Your task to perform on an android device: Go to battery settings Image 0: 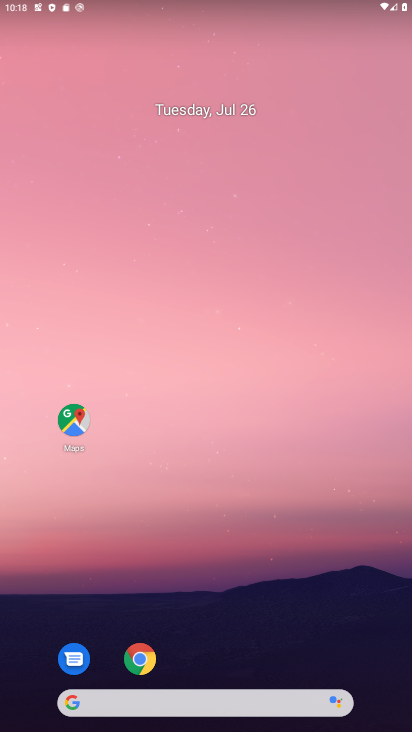
Step 0: press home button
Your task to perform on an android device: Go to battery settings Image 1: 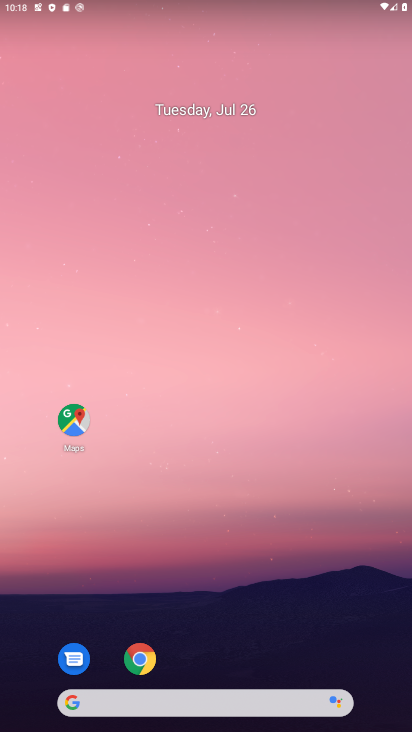
Step 1: drag from (297, 623) to (364, 213)
Your task to perform on an android device: Go to battery settings Image 2: 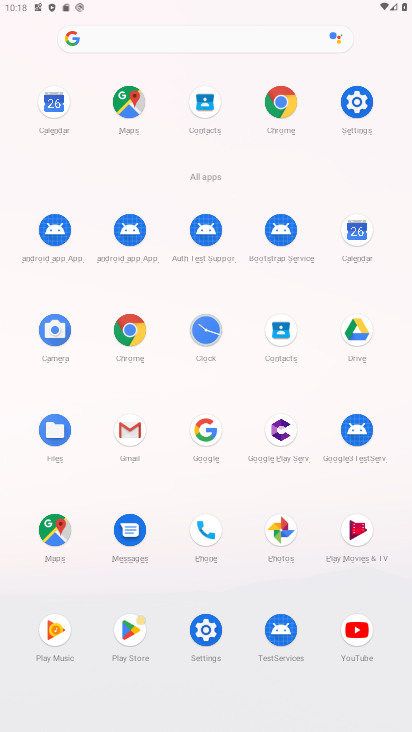
Step 2: click (350, 126)
Your task to perform on an android device: Go to battery settings Image 3: 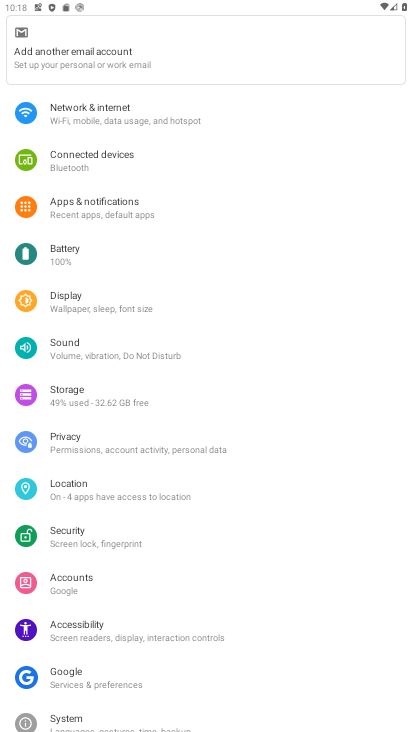
Step 3: click (69, 250)
Your task to perform on an android device: Go to battery settings Image 4: 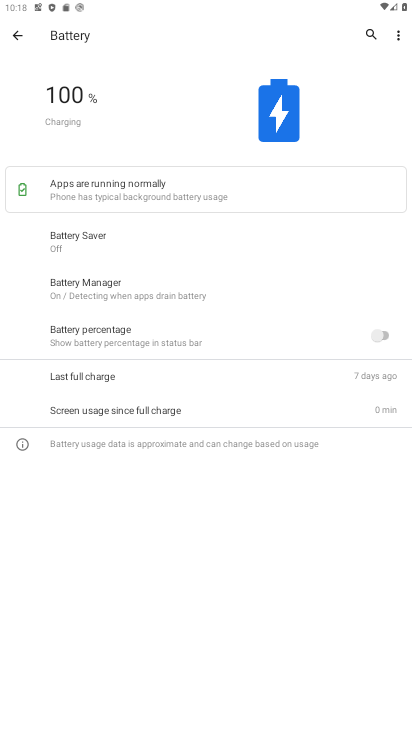
Step 4: task complete